Your task to perform on an android device: Open Youtube and go to the subscriptions tab Image 0: 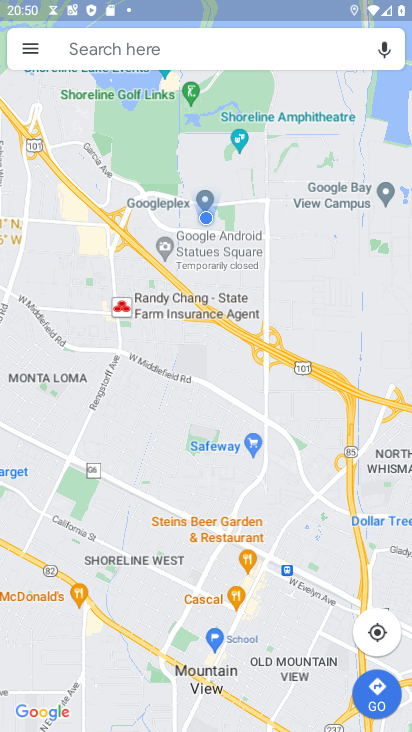
Step 0: press home button
Your task to perform on an android device: Open Youtube and go to the subscriptions tab Image 1: 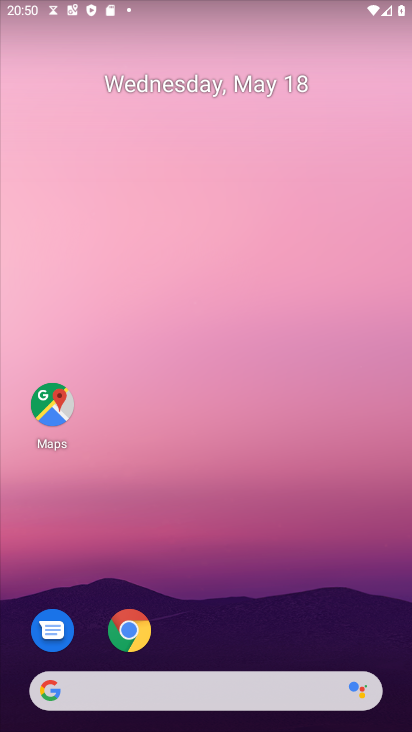
Step 1: drag from (119, 687) to (276, 217)
Your task to perform on an android device: Open Youtube and go to the subscriptions tab Image 2: 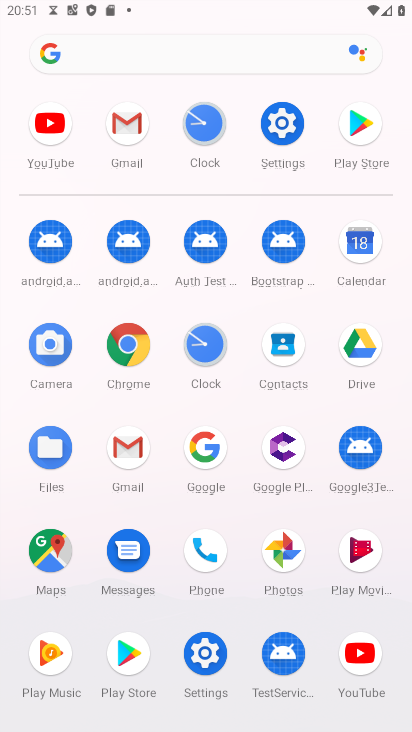
Step 2: click (352, 656)
Your task to perform on an android device: Open Youtube and go to the subscriptions tab Image 3: 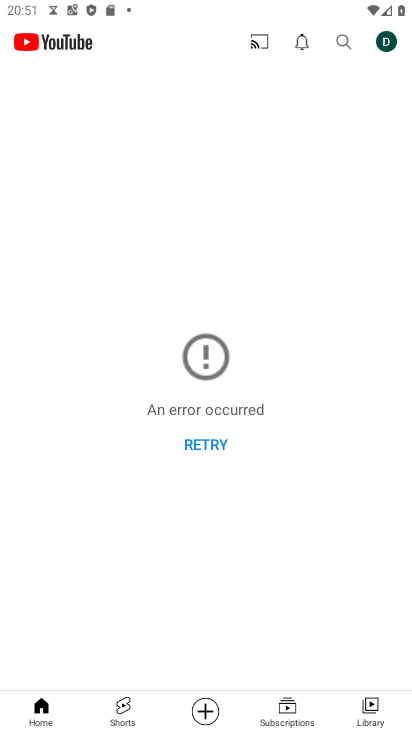
Step 3: click (205, 444)
Your task to perform on an android device: Open Youtube and go to the subscriptions tab Image 4: 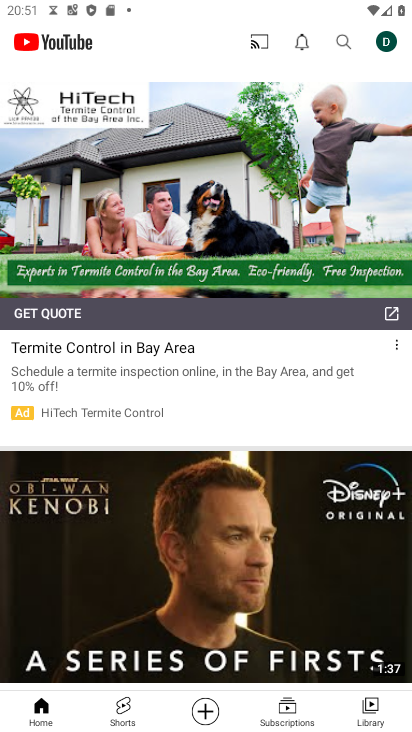
Step 4: click (297, 710)
Your task to perform on an android device: Open Youtube and go to the subscriptions tab Image 5: 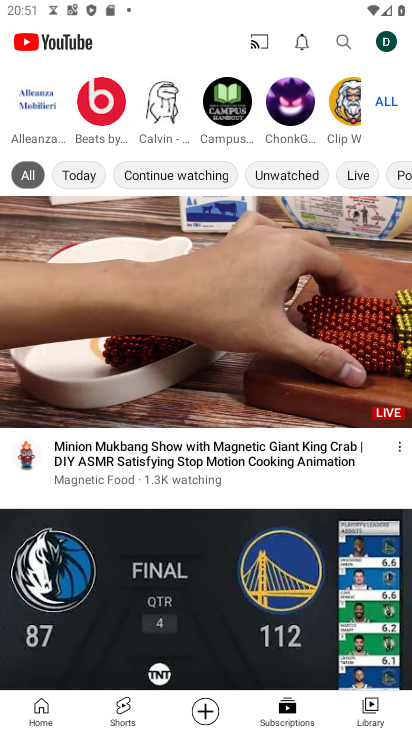
Step 5: task complete